Your task to perform on an android device: change the clock display to digital Image 0: 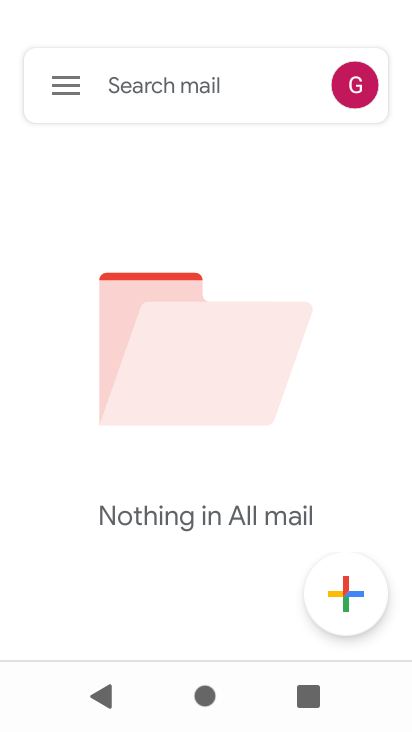
Step 0: press back button
Your task to perform on an android device: change the clock display to digital Image 1: 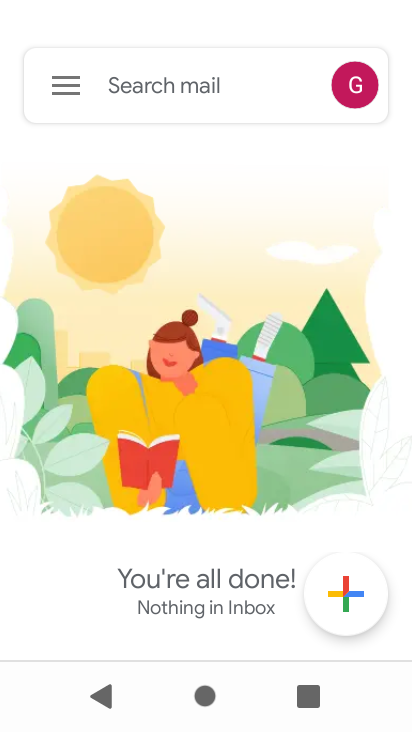
Step 1: press back button
Your task to perform on an android device: change the clock display to digital Image 2: 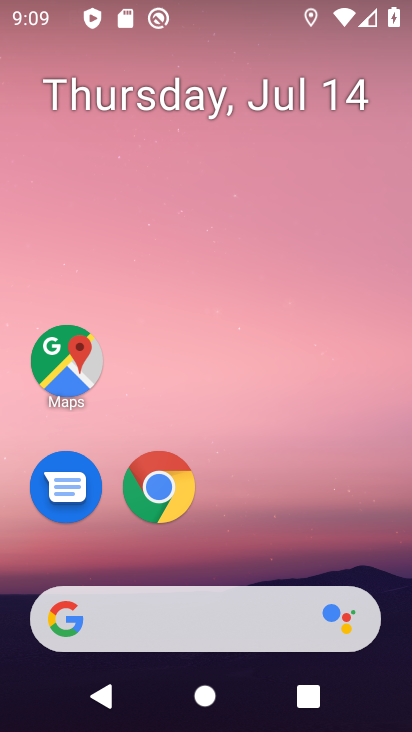
Step 2: drag from (328, 526) to (306, 68)
Your task to perform on an android device: change the clock display to digital Image 3: 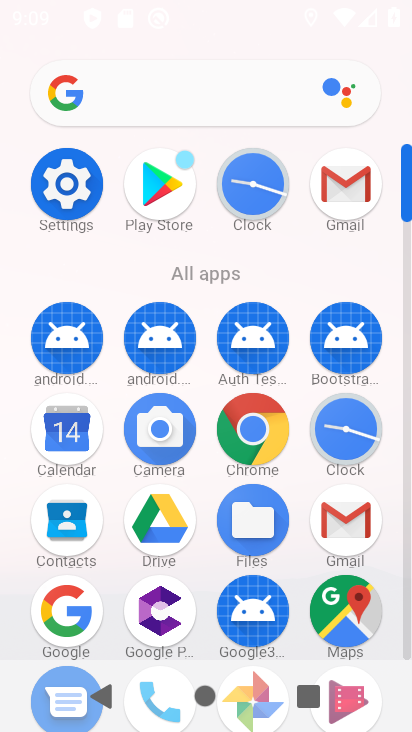
Step 3: click (250, 187)
Your task to perform on an android device: change the clock display to digital Image 4: 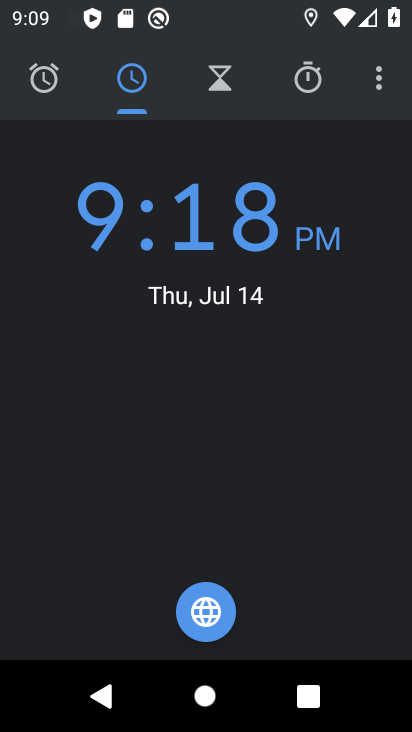
Step 4: click (387, 66)
Your task to perform on an android device: change the clock display to digital Image 5: 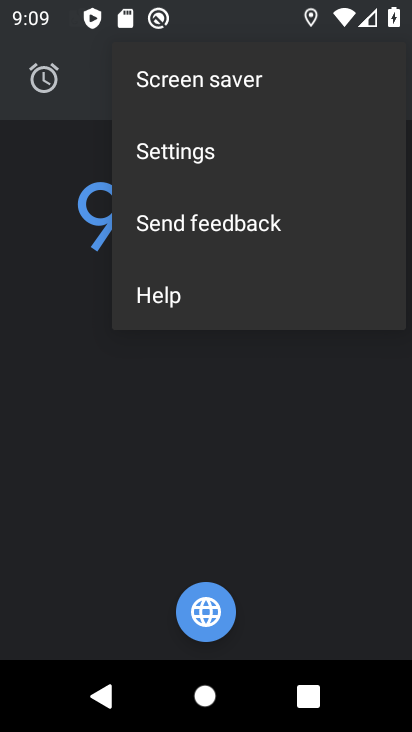
Step 5: click (210, 150)
Your task to perform on an android device: change the clock display to digital Image 6: 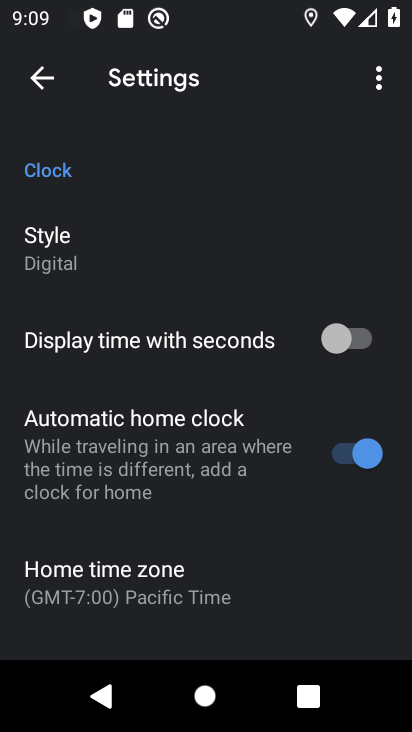
Step 6: task complete